Your task to perform on an android device: Open ESPN.com Image 0: 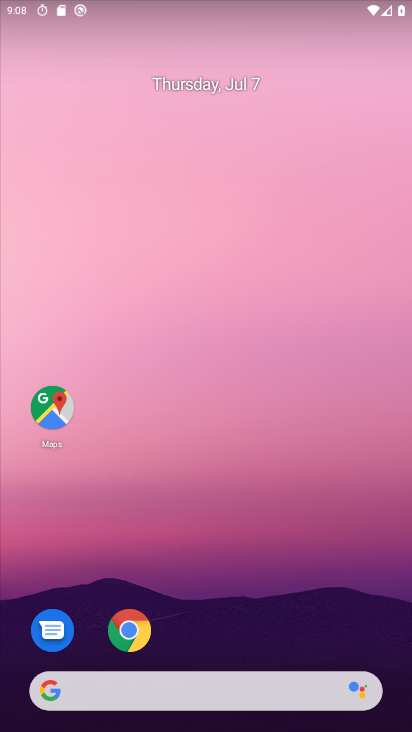
Step 0: drag from (110, 306) to (172, 37)
Your task to perform on an android device: Open ESPN.com Image 1: 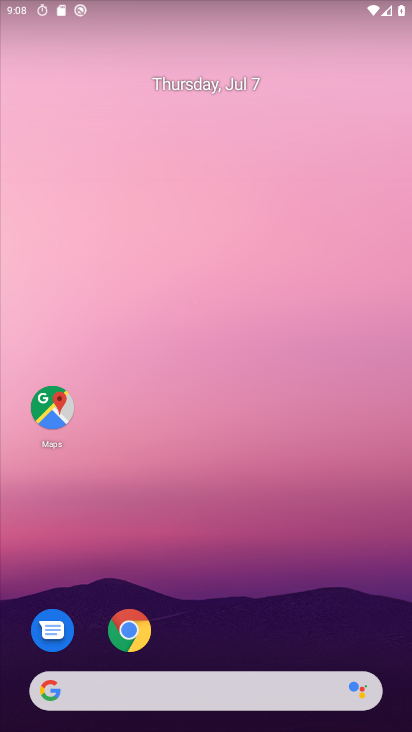
Step 1: drag from (17, 711) to (208, 18)
Your task to perform on an android device: Open ESPN.com Image 2: 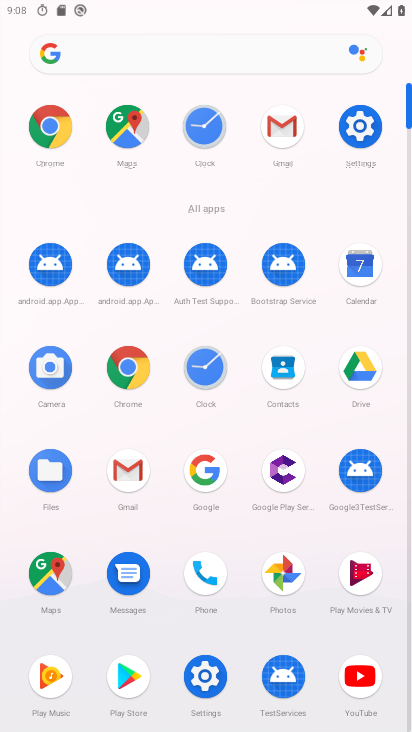
Step 2: click (125, 52)
Your task to perform on an android device: Open ESPN.com Image 3: 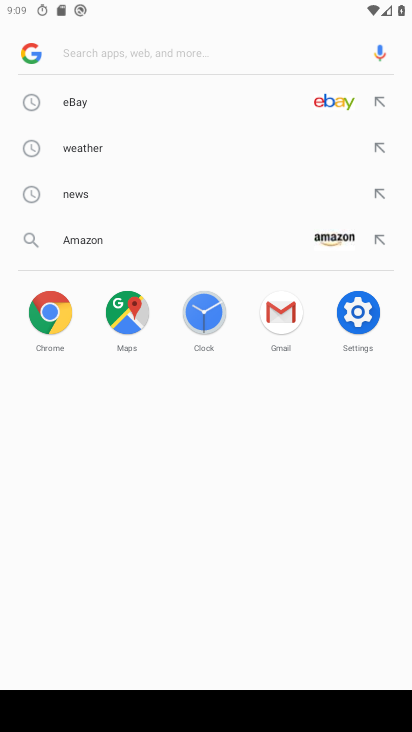
Step 3: type "ESPN.com"
Your task to perform on an android device: Open ESPN.com Image 4: 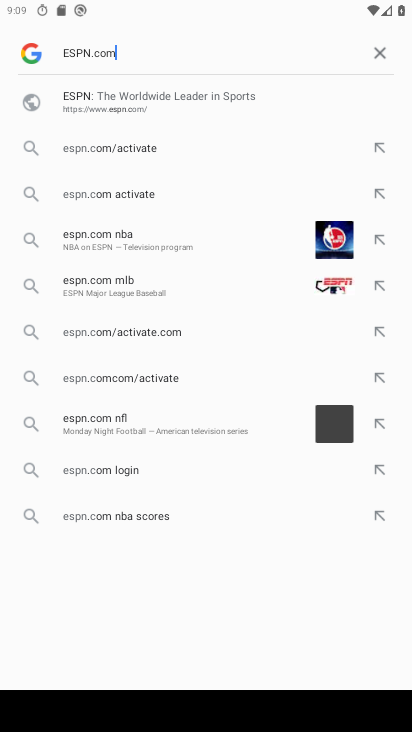
Step 4: type ""
Your task to perform on an android device: Open ESPN.com Image 5: 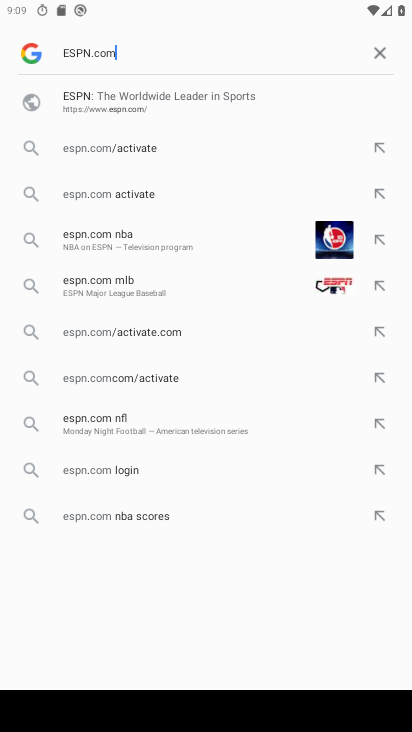
Step 5: type ""
Your task to perform on an android device: Open ESPN.com Image 6: 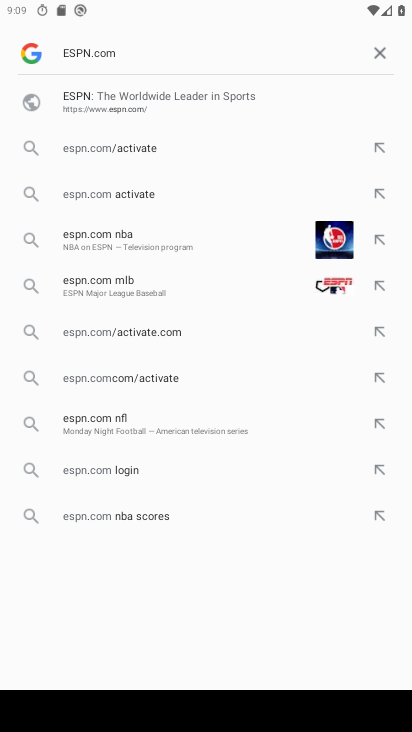
Step 6: type ""
Your task to perform on an android device: Open ESPN.com Image 7: 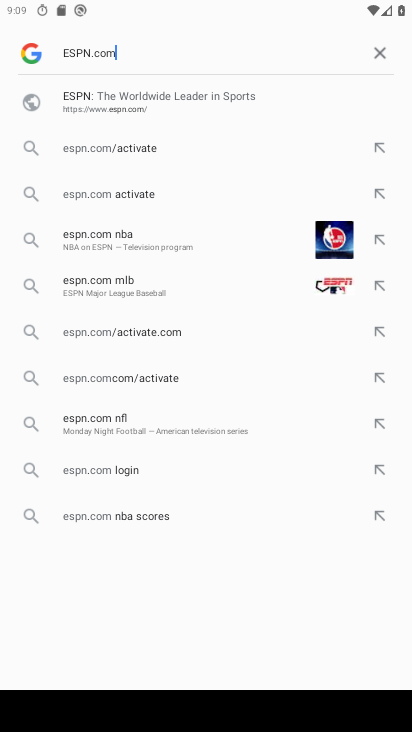
Step 7: type ""
Your task to perform on an android device: Open ESPN.com Image 8: 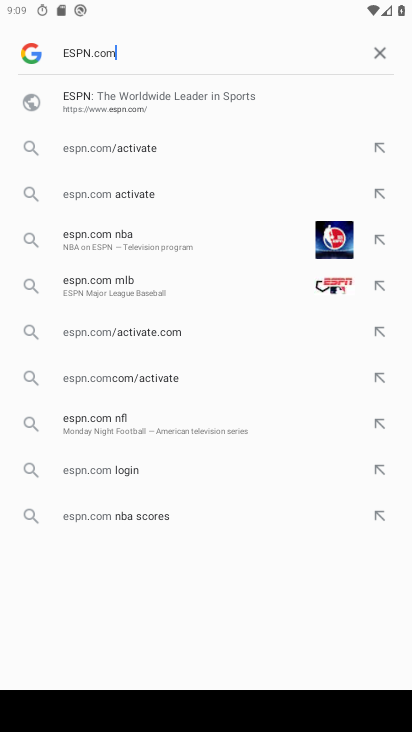
Step 8: click (91, 96)
Your task to perform on an android device: Open ESPN.com Image 9: 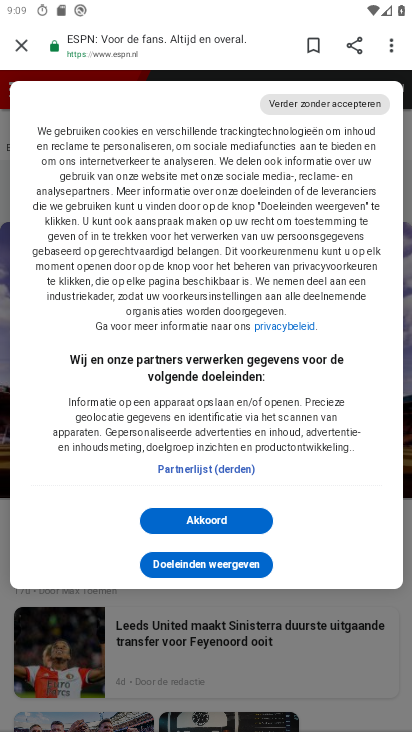
Step 9: task complete